Your task to perform on an android device: Open Yahoo.com Image 0: 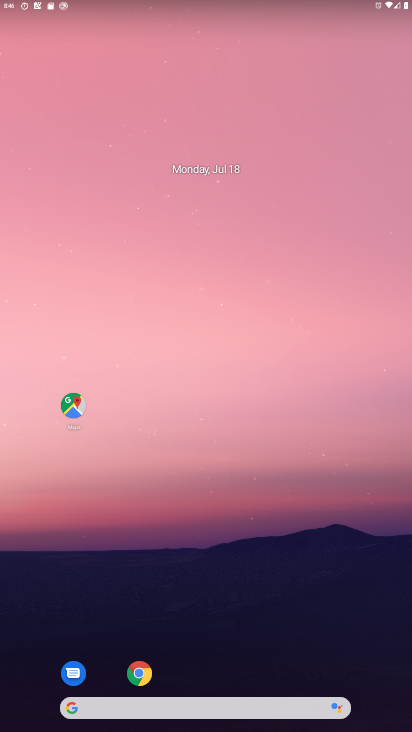
Step 0: click (132, 678)
Your task to perform on an android device: Open Yahoo.com Image 1: 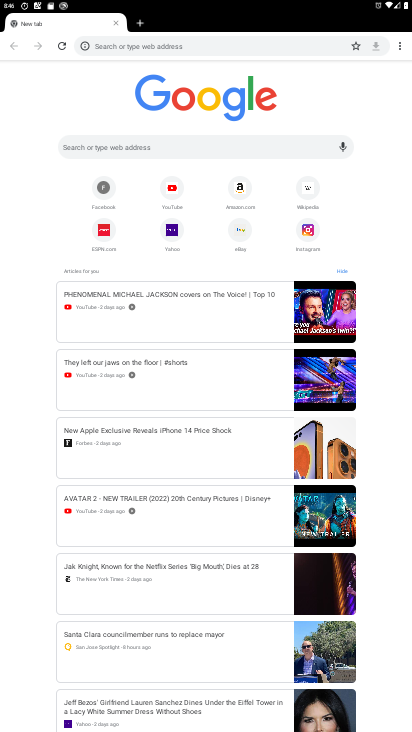
Step 1: click (170, 248)
Your task to perform on an android device: Open Yahoo.com Image 2: 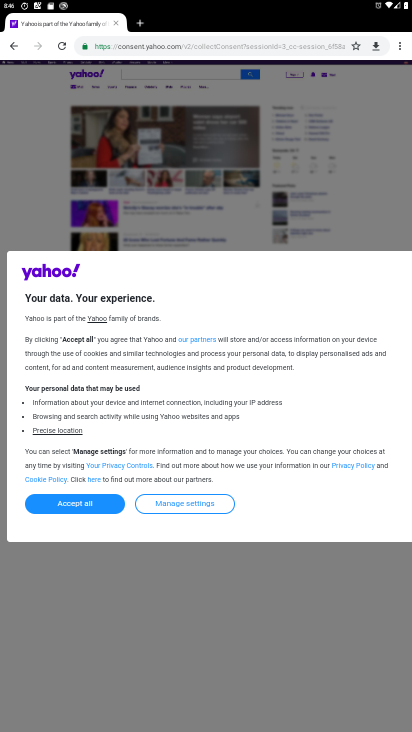
Step 2: task complete